Your task to perform on an android device: star an email in the gmail app Image 0: 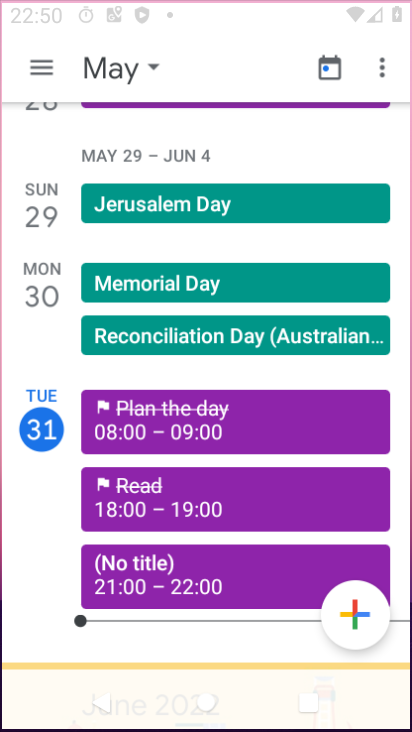
Step 0: drag from (239, 625) to (135, 69)
Your task to perform on an android device: star an email in the gmail app Image 1: 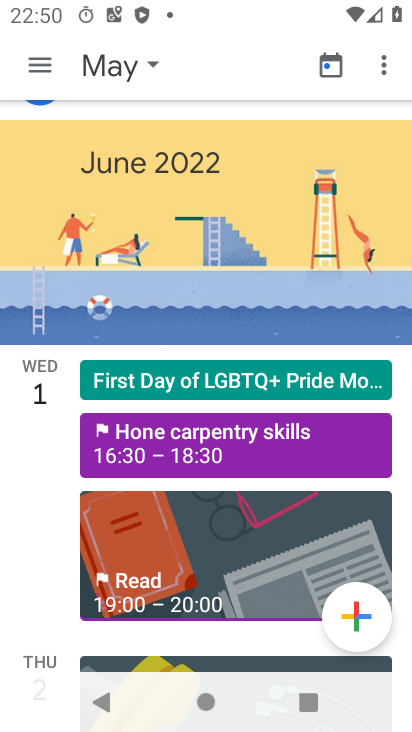
Step 1: press home button
Your task to perform on an android device: star an email in the gmail app Image 2: 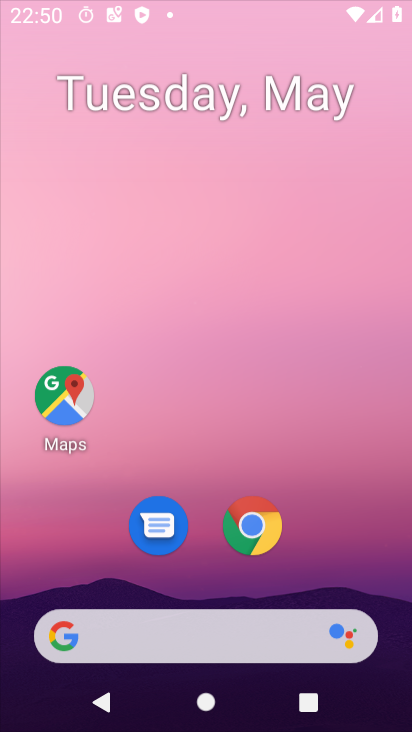
Step 2: drag from (233, 516) to (254, 108)
Your task to perform on an android device: star an email in the gmail app Image 3: 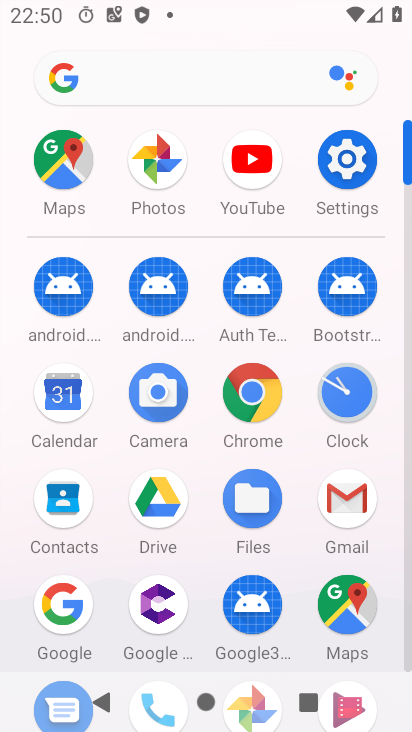
Step 3: click (352, 501)
Your task to perform on an android device: star an email in the gmail app Image 4: 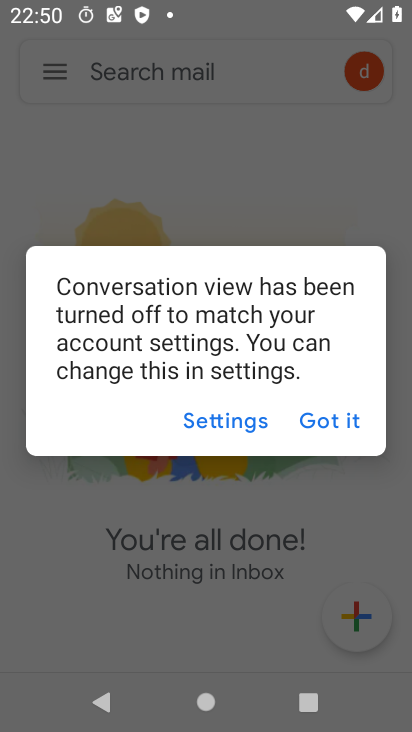
Step 4: click (320, 419)
Your task to perform on an android device: star an email in the gmail app Image 5: 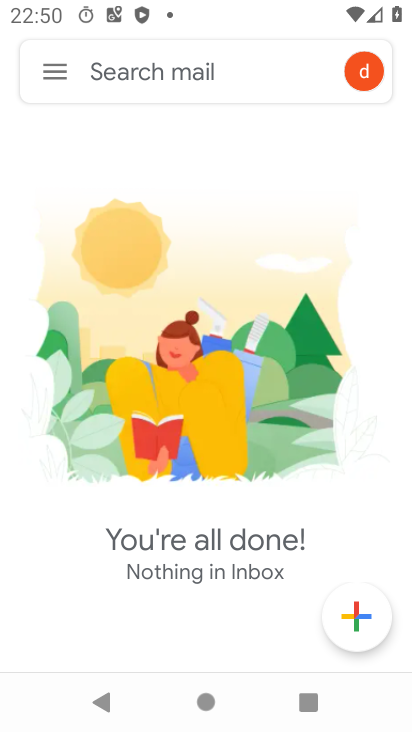
Step 5: drag from (219, 600) to (220, 385)
Your task to perform on an android device: star an email in the gmail app Image 6: 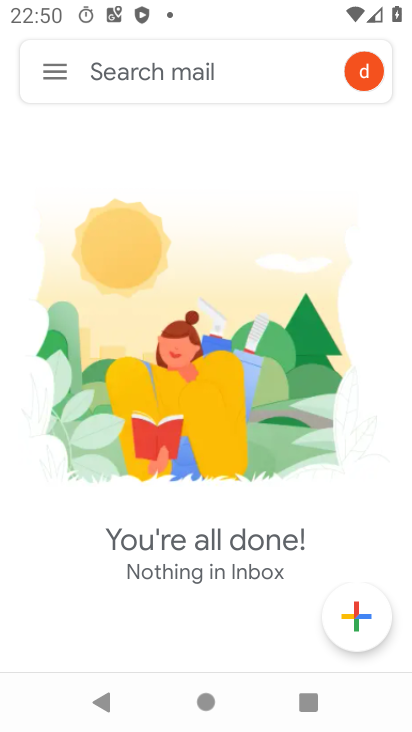
Step 6: click (57, 83)
Your task to perform on an android device: star an email in the gmail app Image 7: 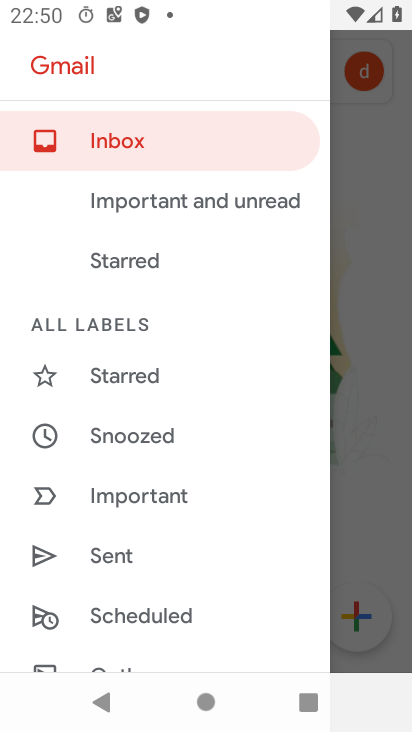
Step 7: drag from (142, 571) to (186, 238)
Your task to perform on an android device: star an email in the gmail app Image 8: 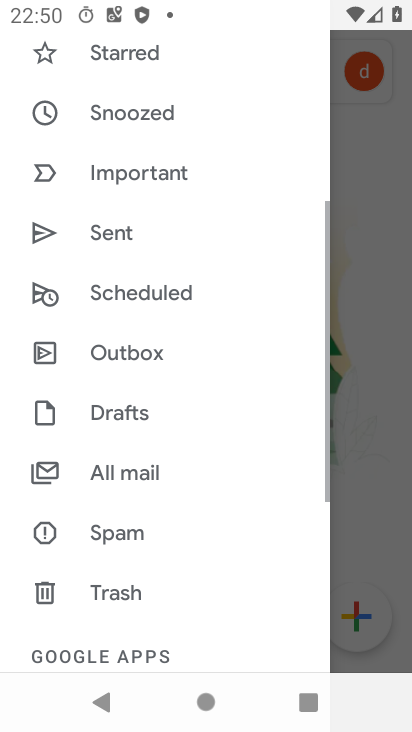
Step 8: drag from (184, 273) to (249, 611)
Your task to perform on an android device: star an email in the gmail app Image 9: 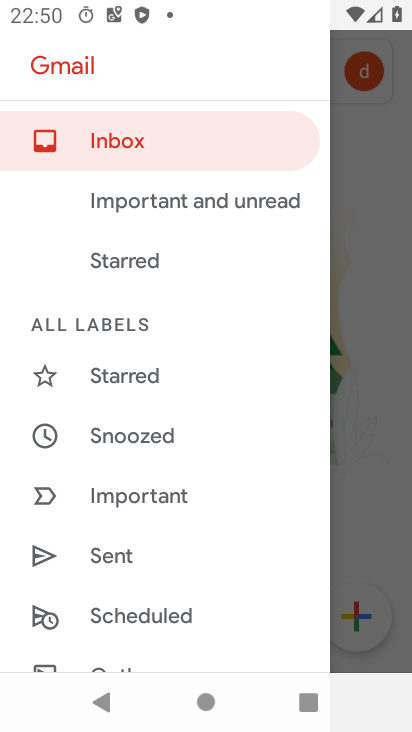
Step 9: click (159, 383)
Your task to perform on an android device: star an email in the gmail app Image 10: 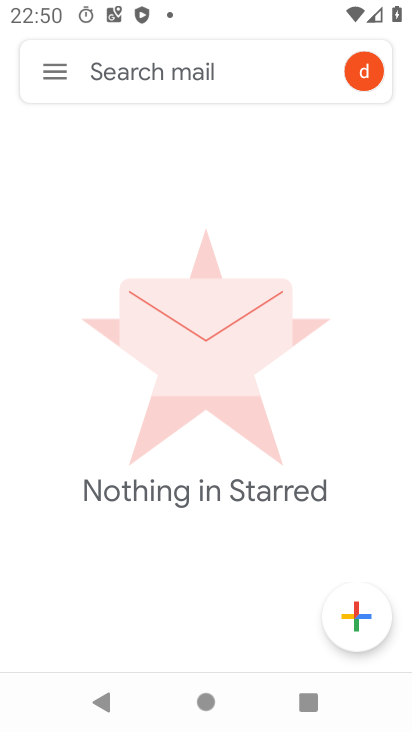
Step 10: drag from (217, 575) to (249, 11)
Your task to perform on an android device: star an email in the gmail app Image 11: 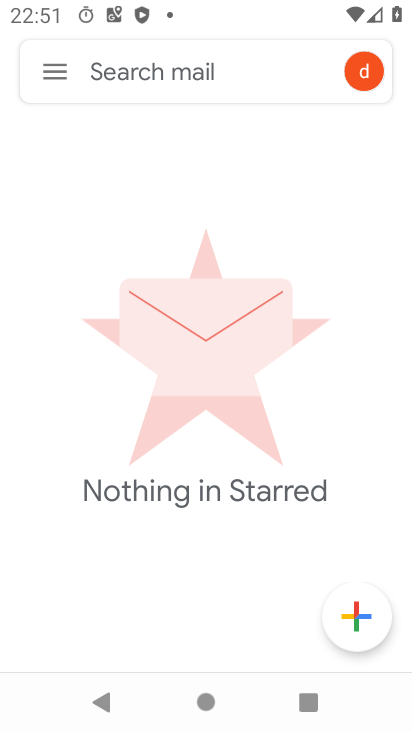
Step 11: click (57, 57)
Your task to perform on an android device: star an email in the gmail app Image 12: 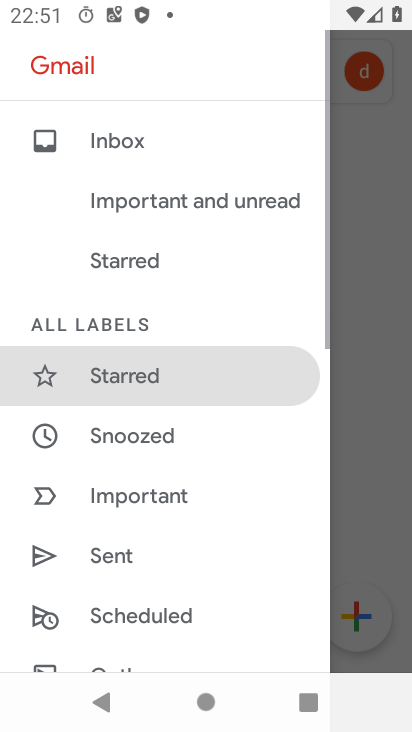
Step 12: click (165, 395)
Your task to perform on an android device: star an email in the gmail app Image 13: 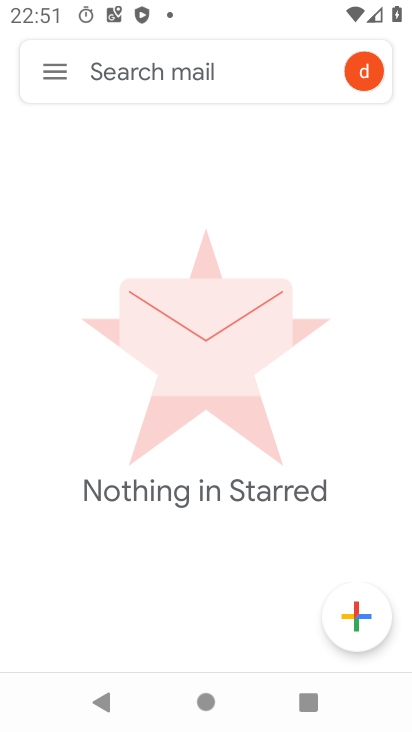
Step 13: task complete